Your task to perform on an android device: Go to CNN.com Image 0: 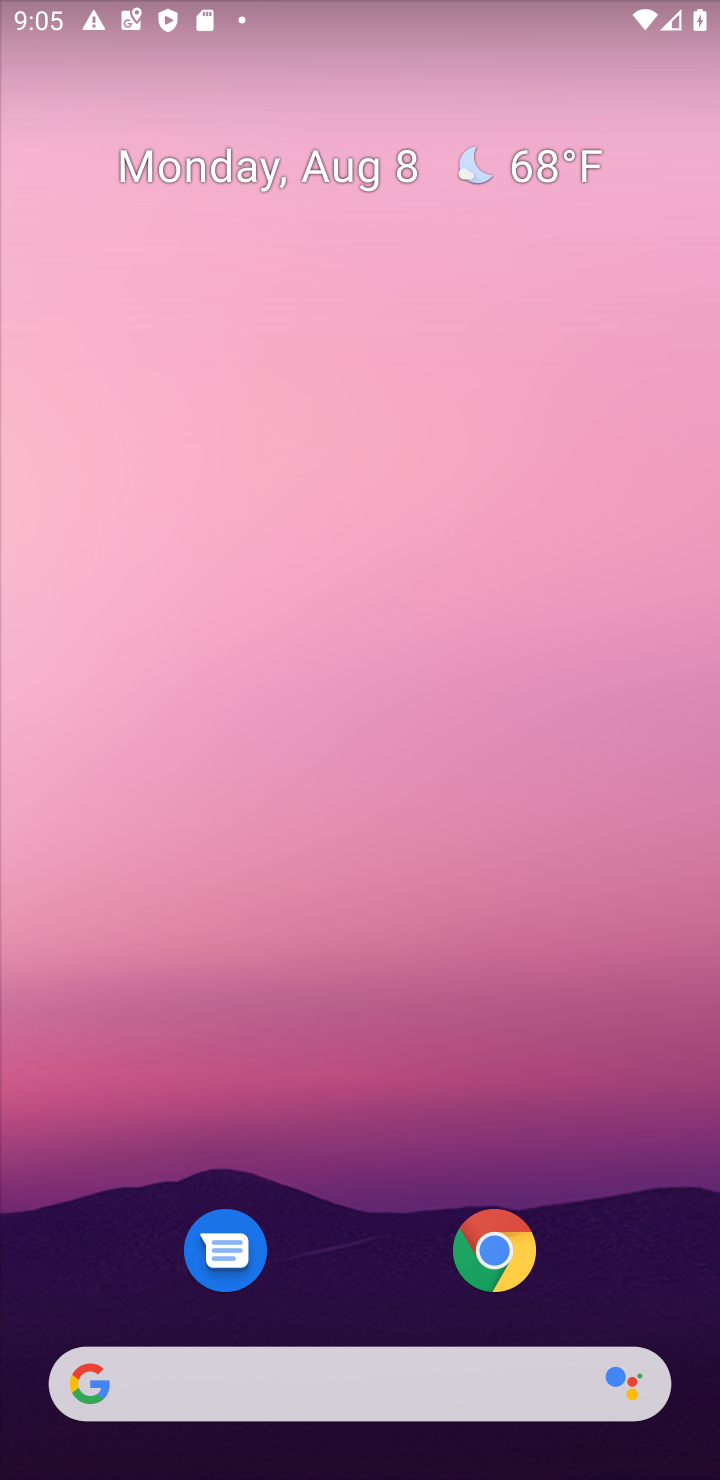
Step 0: click (508, 1250)
Your task to perform on an android device: Go to CNN.com Image 1: 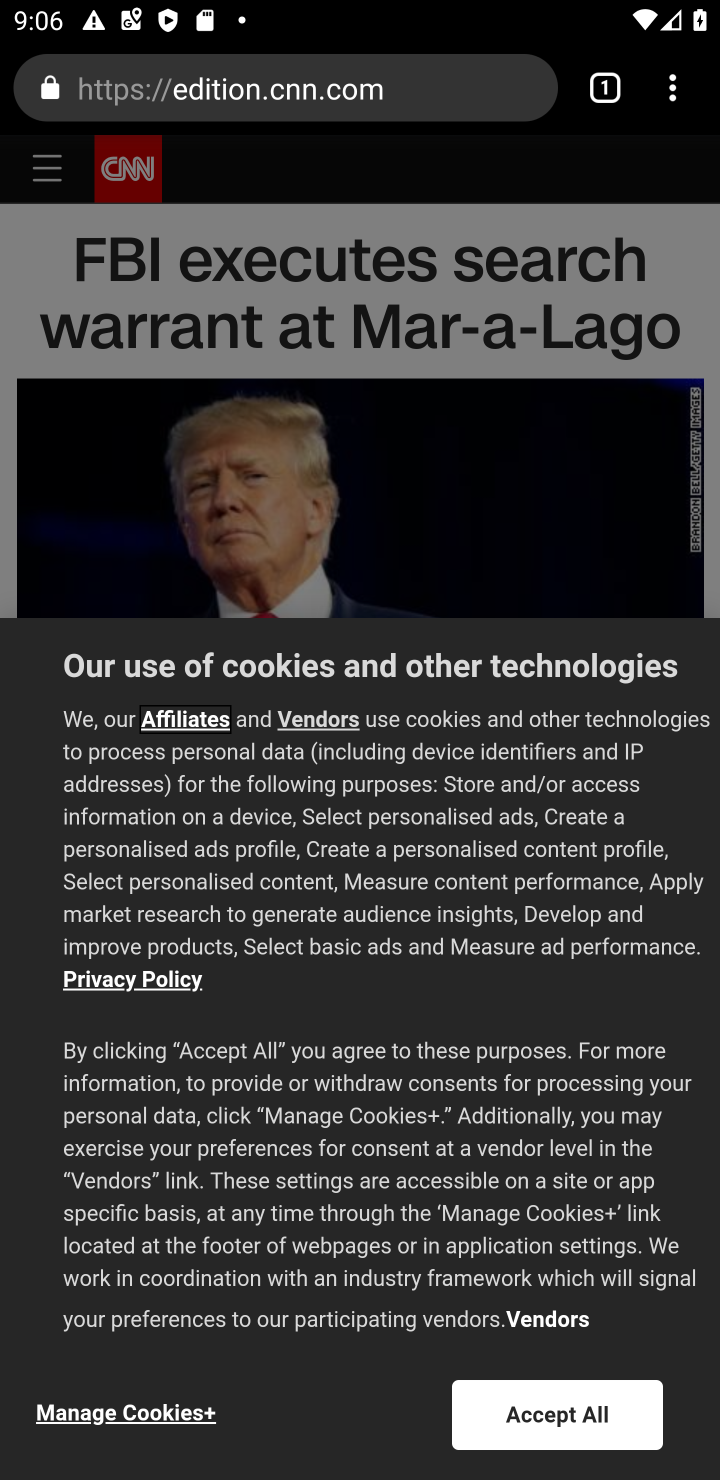
Step 1: task complete